Your task to perform on an android device: turn vacation reply on in the gmail app Image 0: 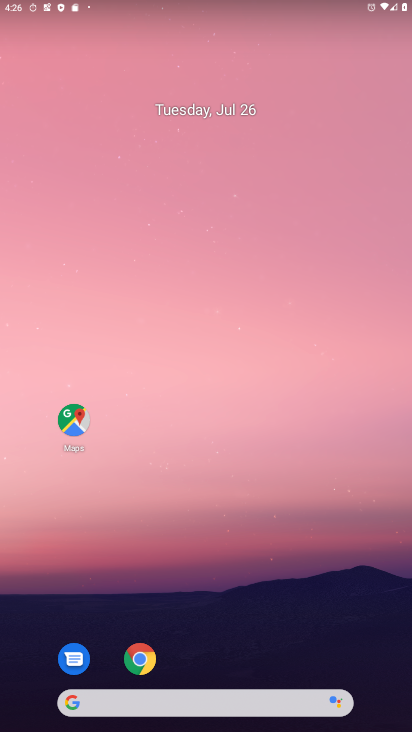
Step 0: press home button
Your task to perform on an android device: turn vacation reply on in the gmail app Image 1: 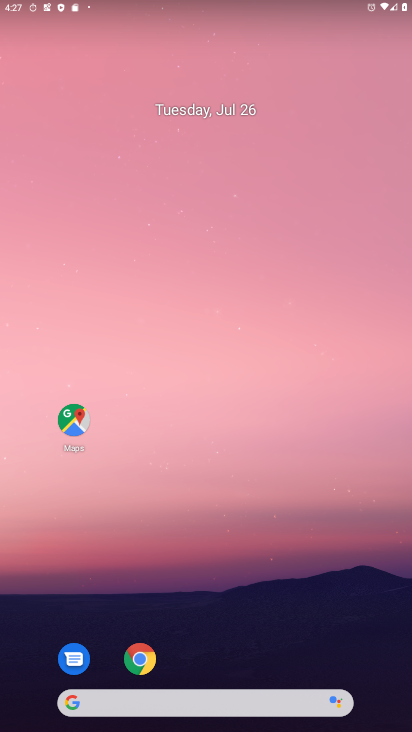
Step 1: drag from (226, 659) to (286, 121)
Your task to perform on an android device: turn vacation reply on in the gmail app Image 2: 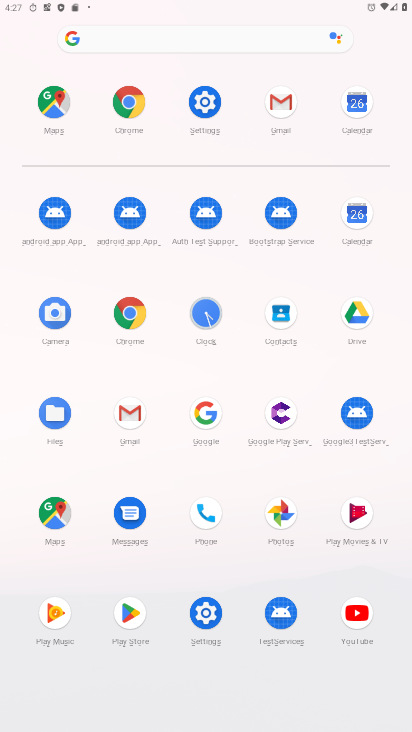
Step 2: click (277, 100)
Your task to perform on an android device: turn vacation reply on in the gmail app Image 3: 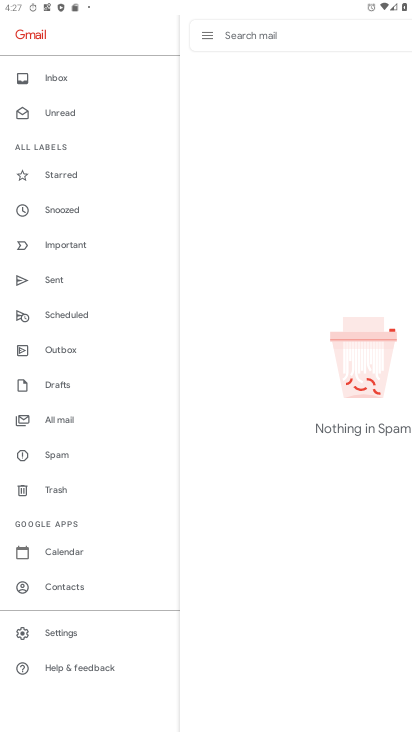
Step 3: click (58, 633)
Your task to perform on an android device: turn vacation reply on in the gmail app Image 4: 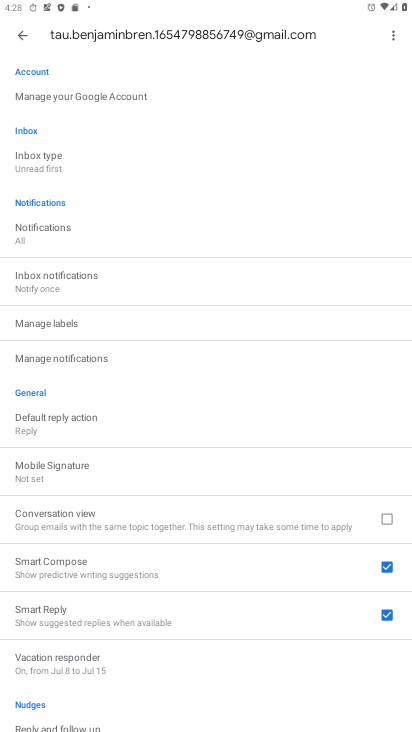
Step 4: click (61, 653)
Your task to perform on an android device: turn vacation reply on in the gmail app Image 5: 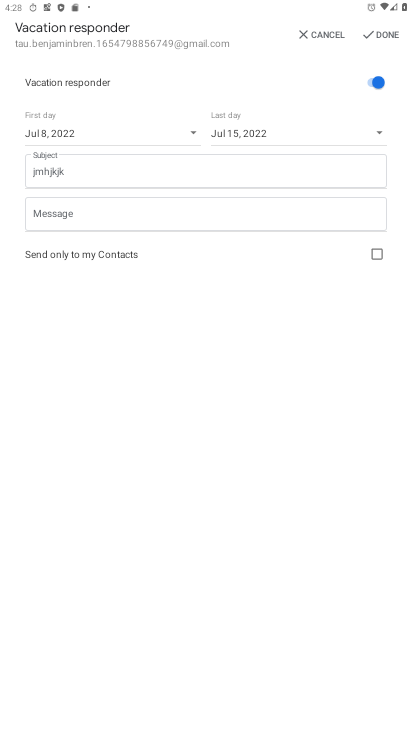
Step 5: task complete